Your task to perform on an android device: Open location settings Image 0: 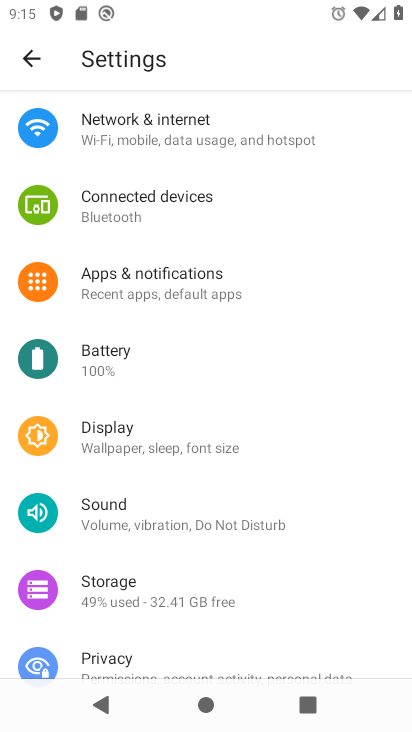
Step 0: drag from (215, 623) to (310, 126)
Your task to perform on an android device: Open location settings Image 1: 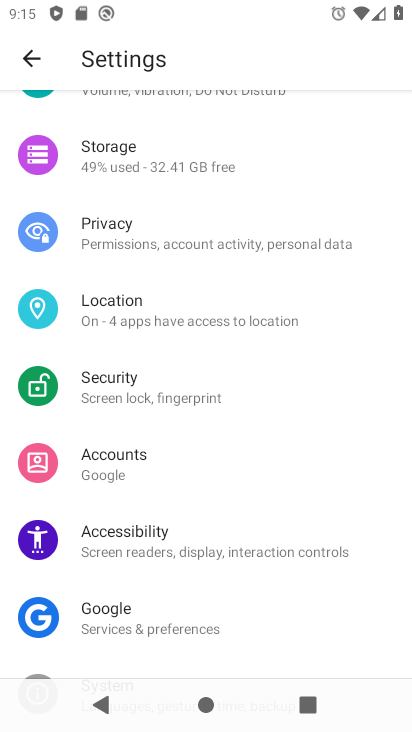
Step 1: click (213, 296)
Your task to perform on an android device: Open location settings Image 2: 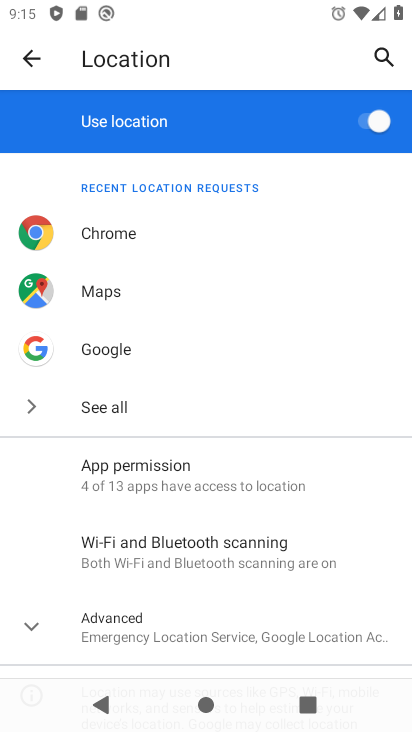
Step 2: task complete